Your task to perform on an android device: turn off sleep mode Image 0: 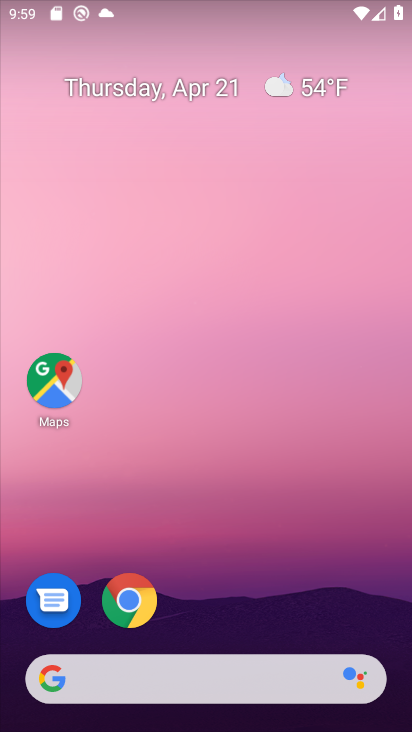
Step 0: drag from (238, 569) to (266, 12)
Your task to perform on an android device: turn off sleep mode Image 1: 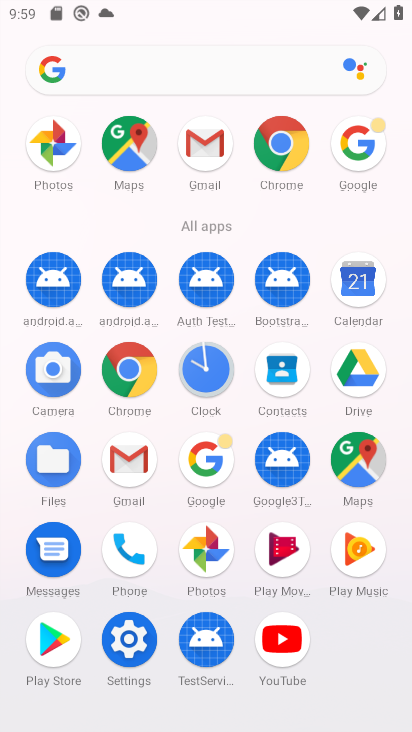
Step 1: click (127, 642)
Your task to perform on an android device: turn off sleep mode Image 2: 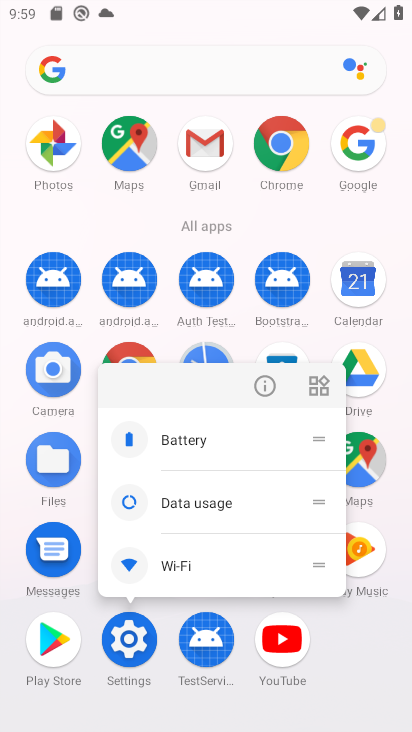
Step 2: click (139, 642)
Your task to perform on an android device: turn off sleep mode Image 3: 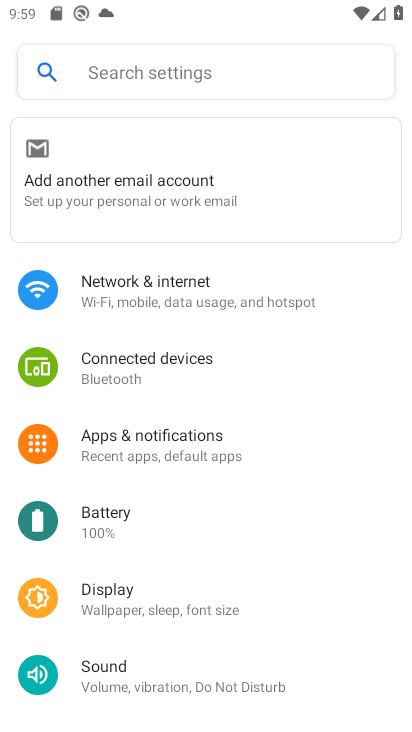
Step 3: click (185, 583)
Your task to perform on an android device: turn off sleep mode Image 4: 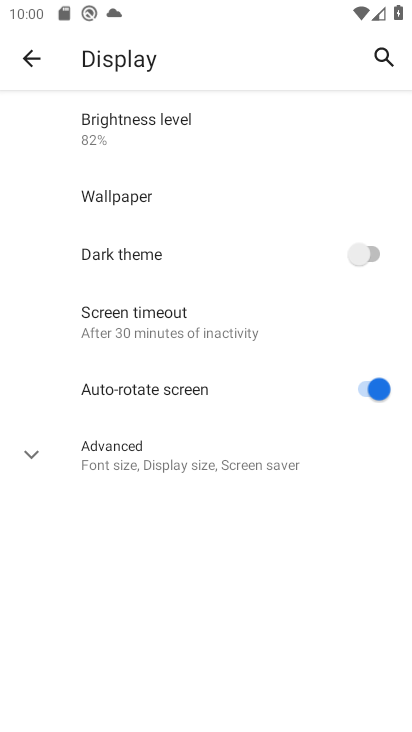
Step 4: task complete